Your task to perform on an android device: turn on javascript in the chrome app Image 0: 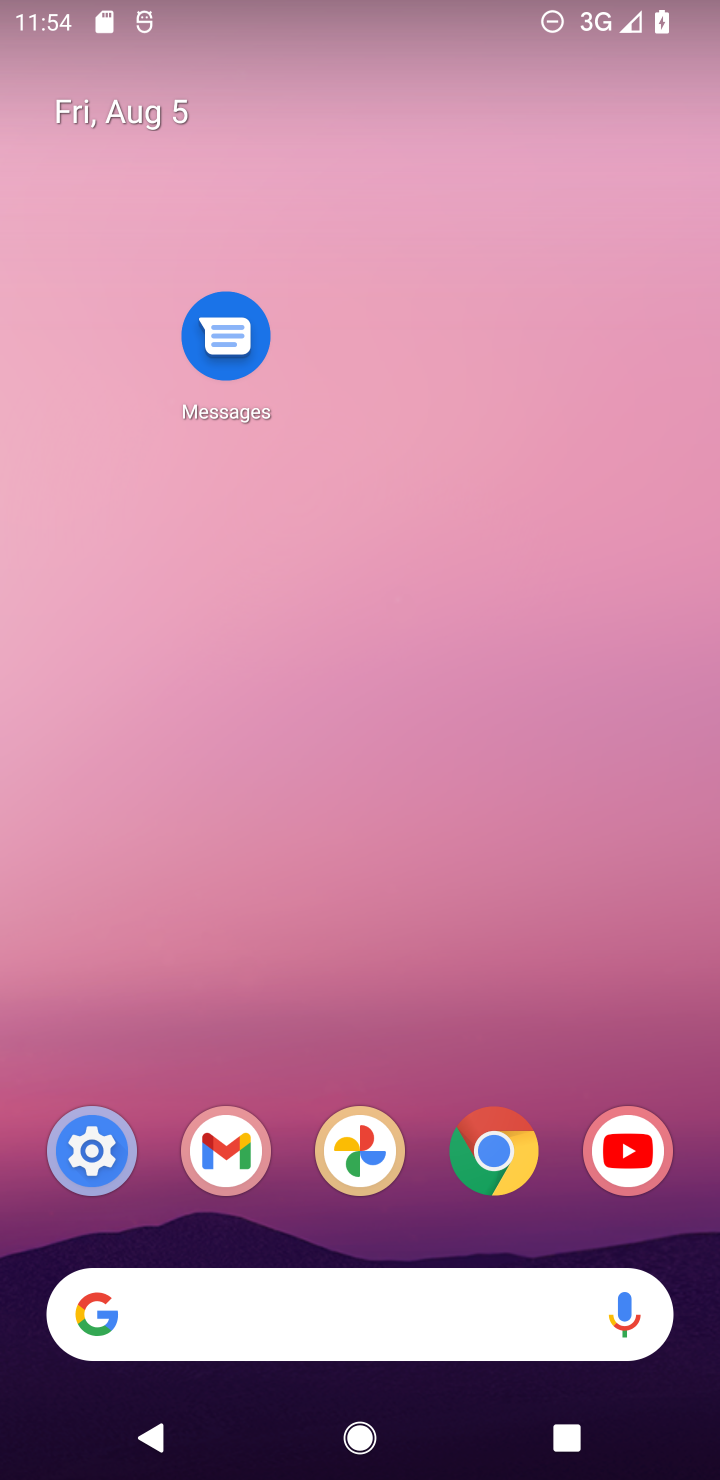
Step 0: click (490, 1146)
Your task to perform on an android device: turn on javascript in the chrome app Image 1: 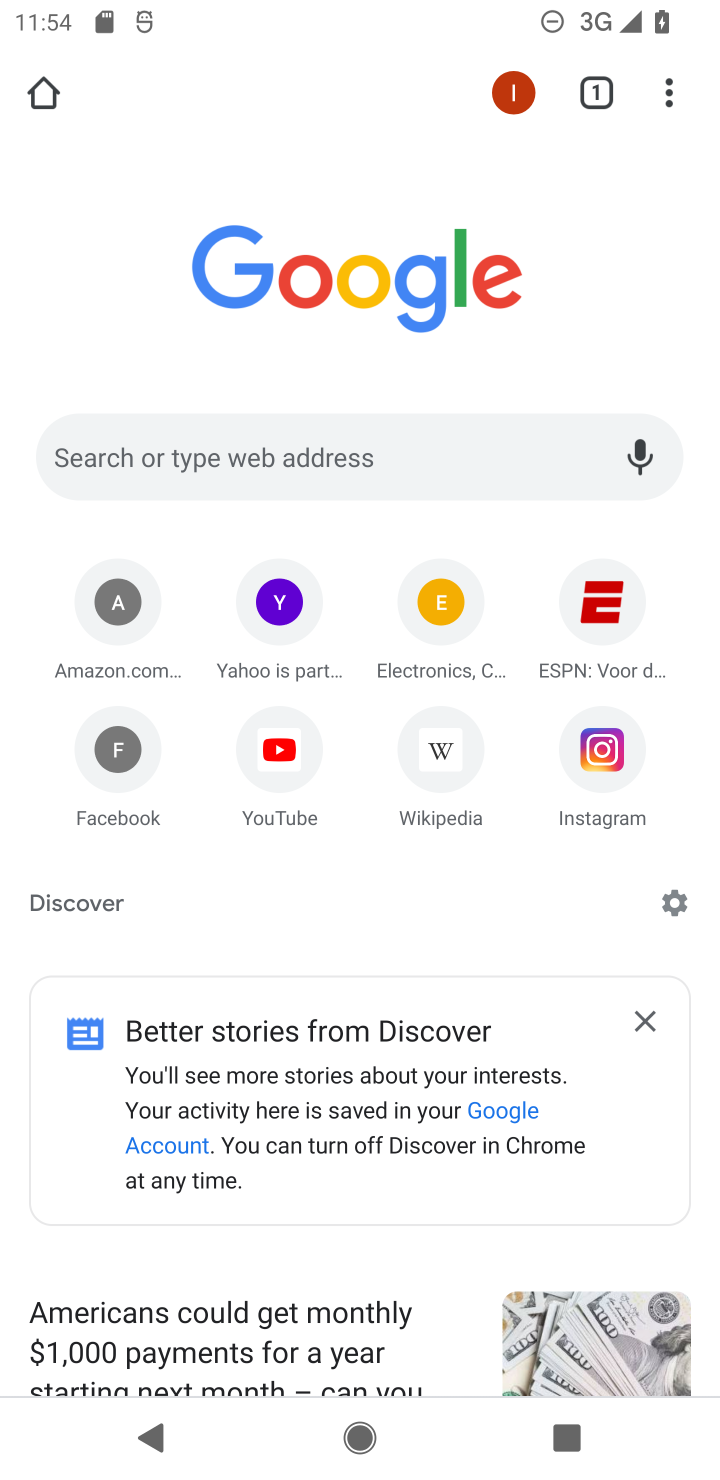
Step 1: click (676, 99)
Your task to perform on an android device: turn on javascript in the chrome app Image 2: 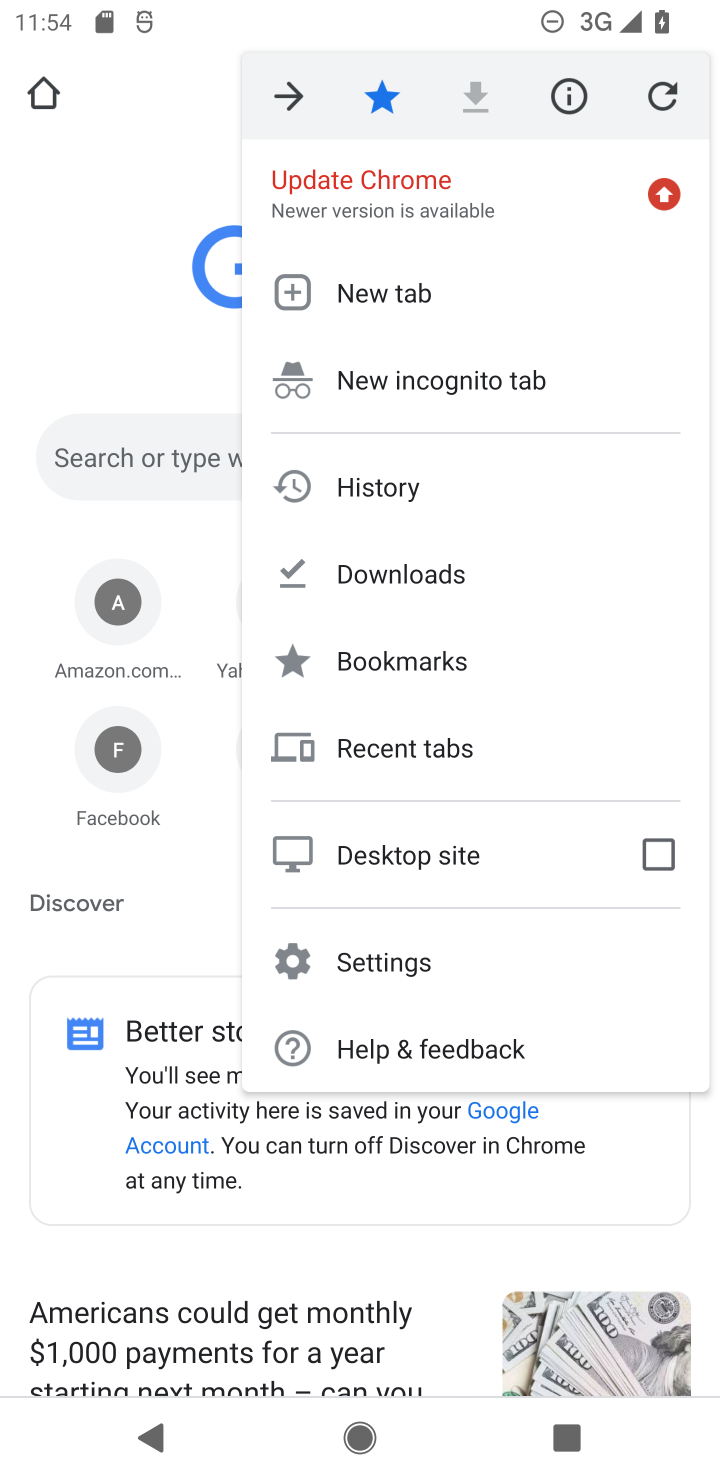
Step 2: click (360, 981)
Your task to perform on an android device: turn on javascript in the chrome app Image 3: 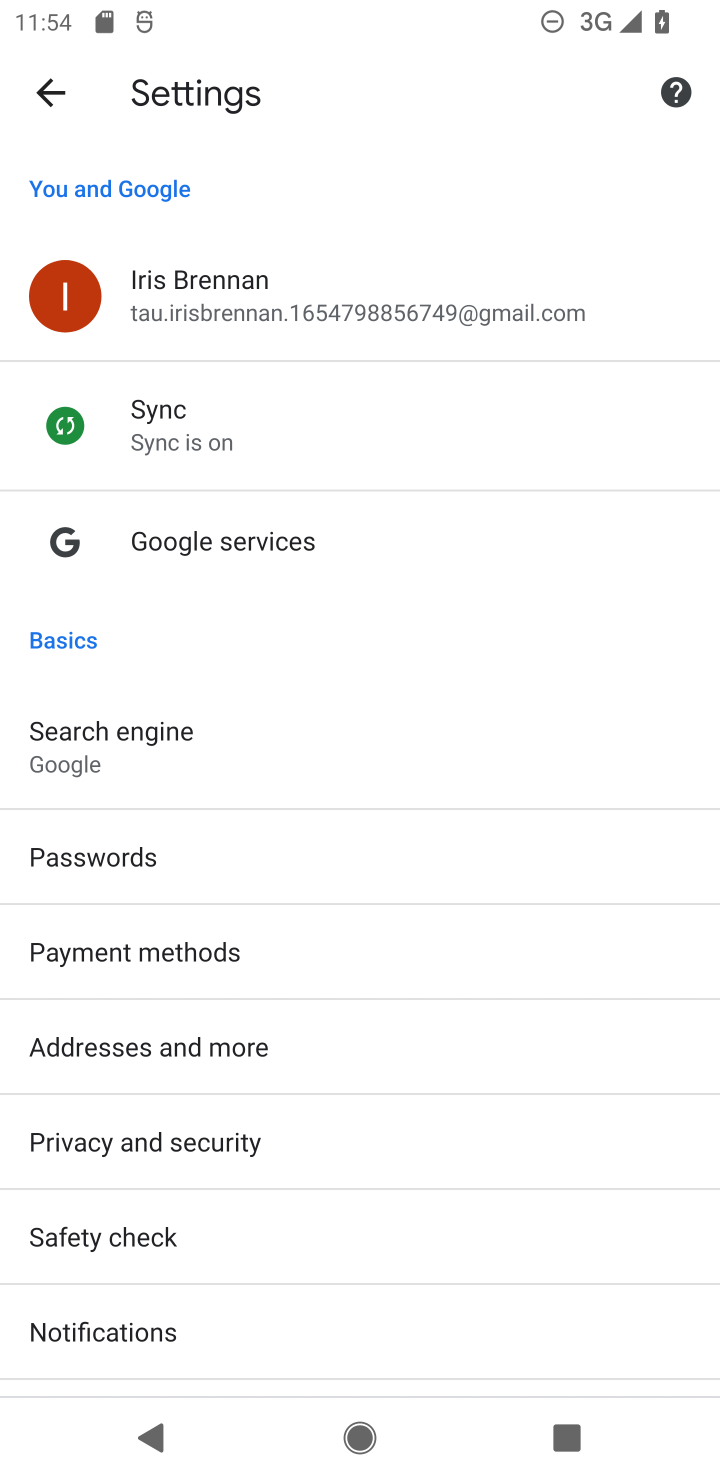
Step 3: drag from (253, 1238) to (276, 486)
Your task to perform on an android device: turn on javascript in the chrome app Image 4: 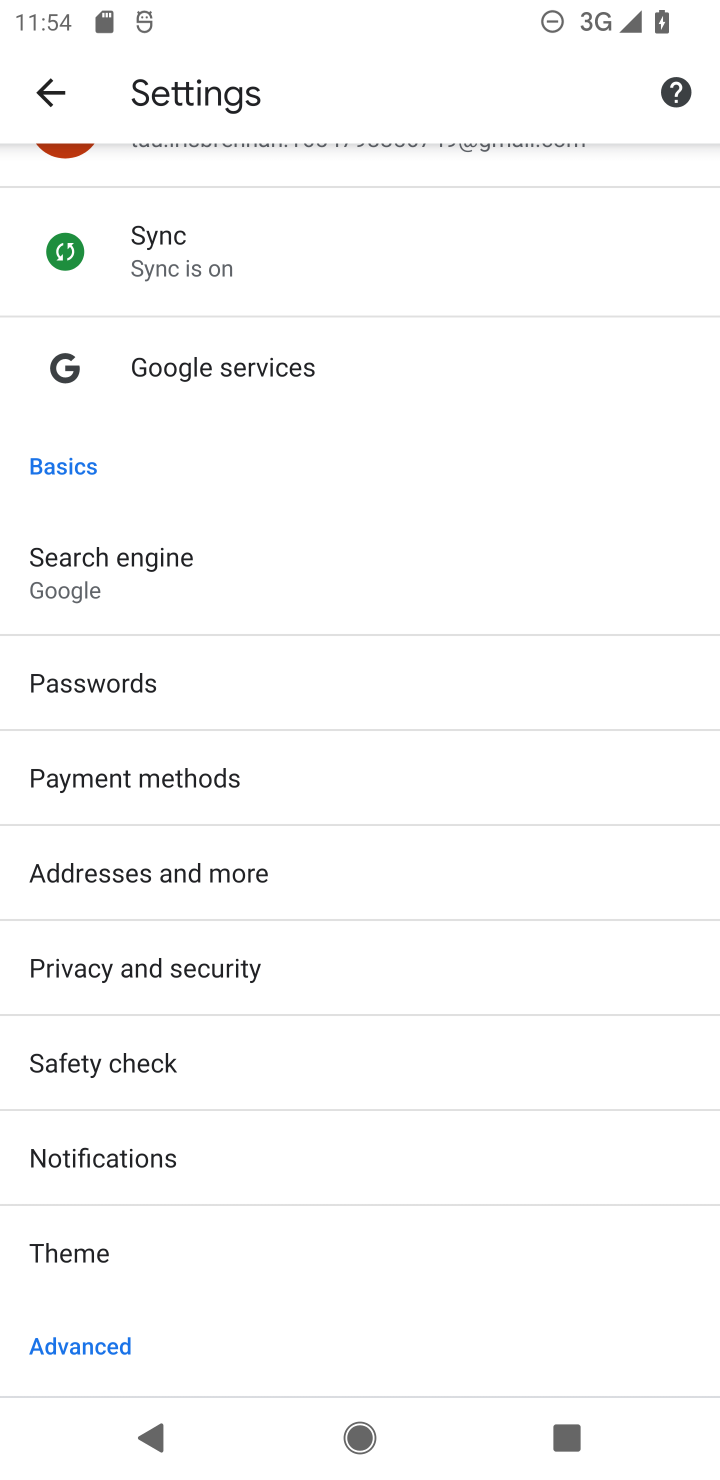
Step 4: drag from (136, 1186) to (165, 790)
Your task to perform on an android device: turn on javascript in the chrome app Image 5: 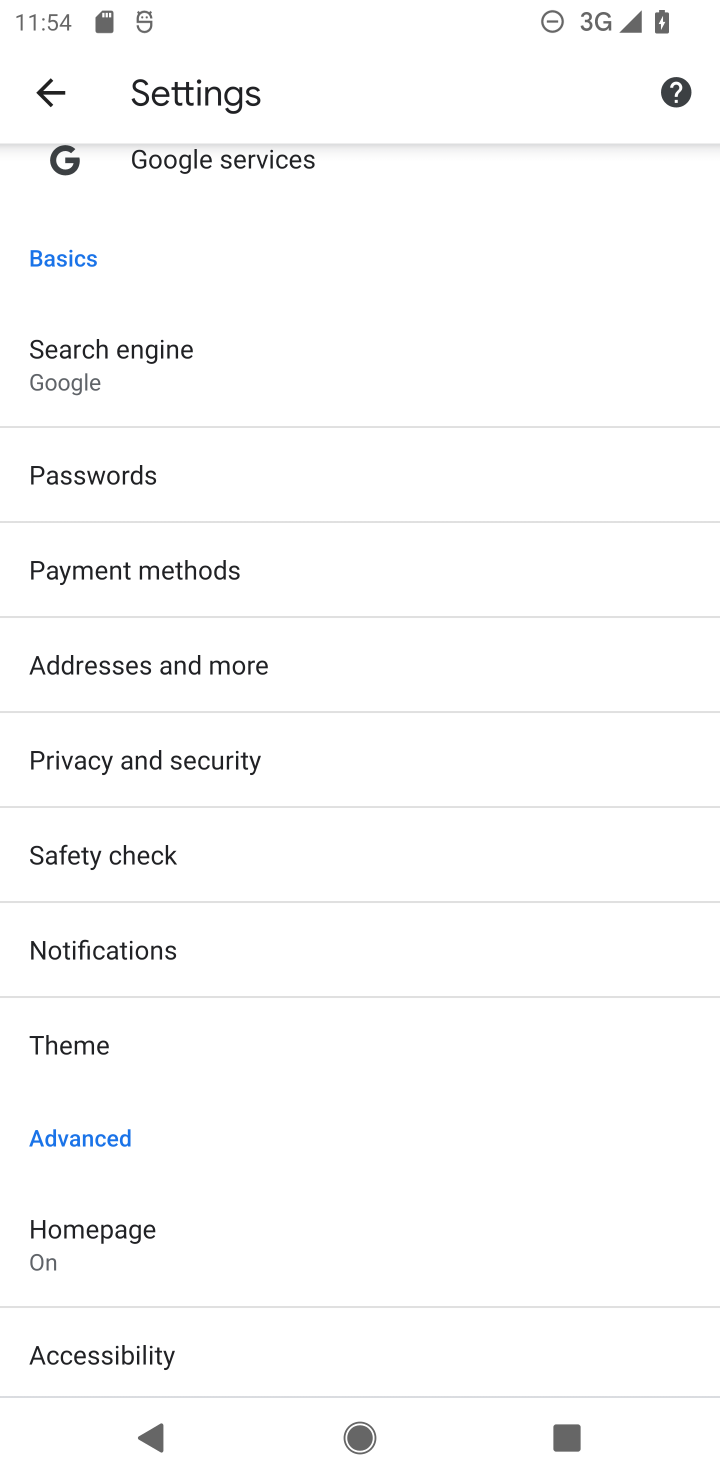
Step 5: click (219, 499)
Your task to perform on an android device: turn on javascript in the chrome app Image 6: 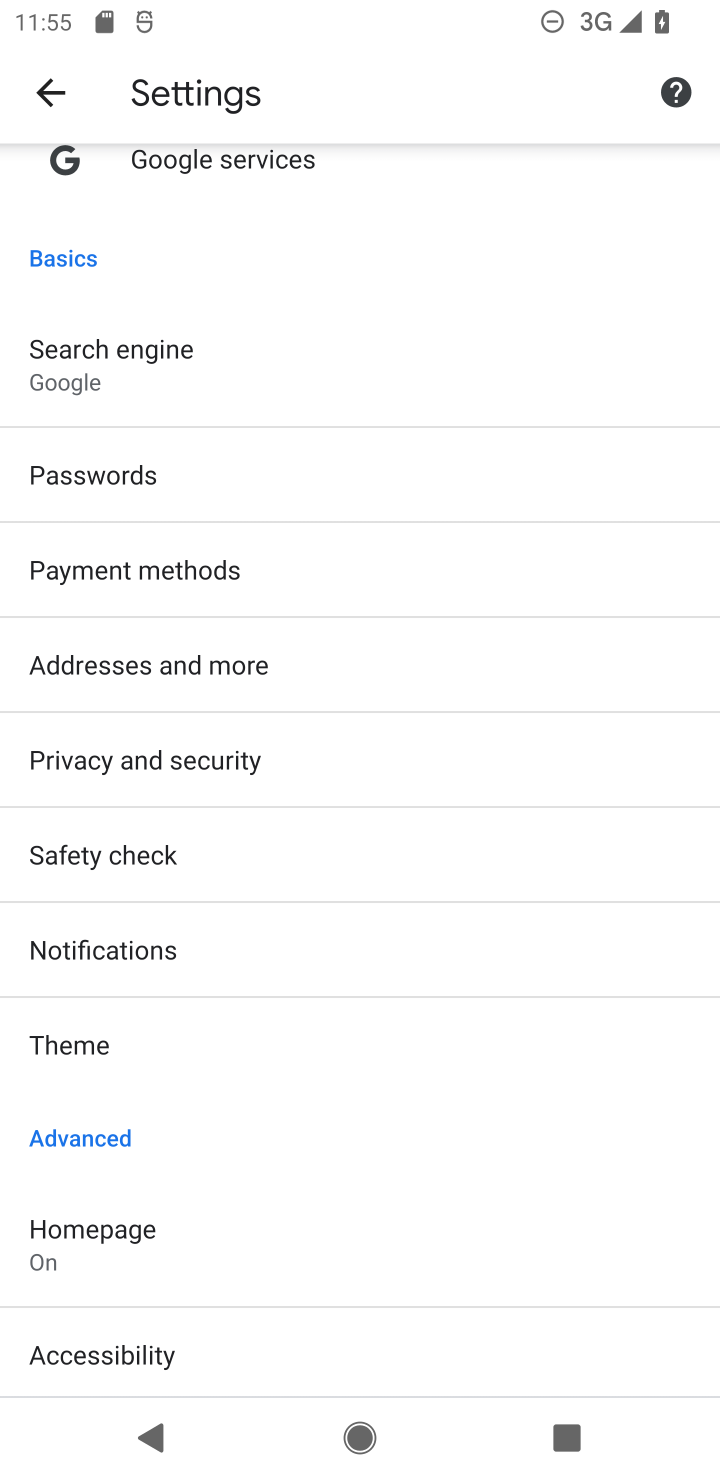
Step 6: drag from (176, 1122) to (189, 688)
Your task to perform on an android device: turn on javascript in the chrome app Image 7: 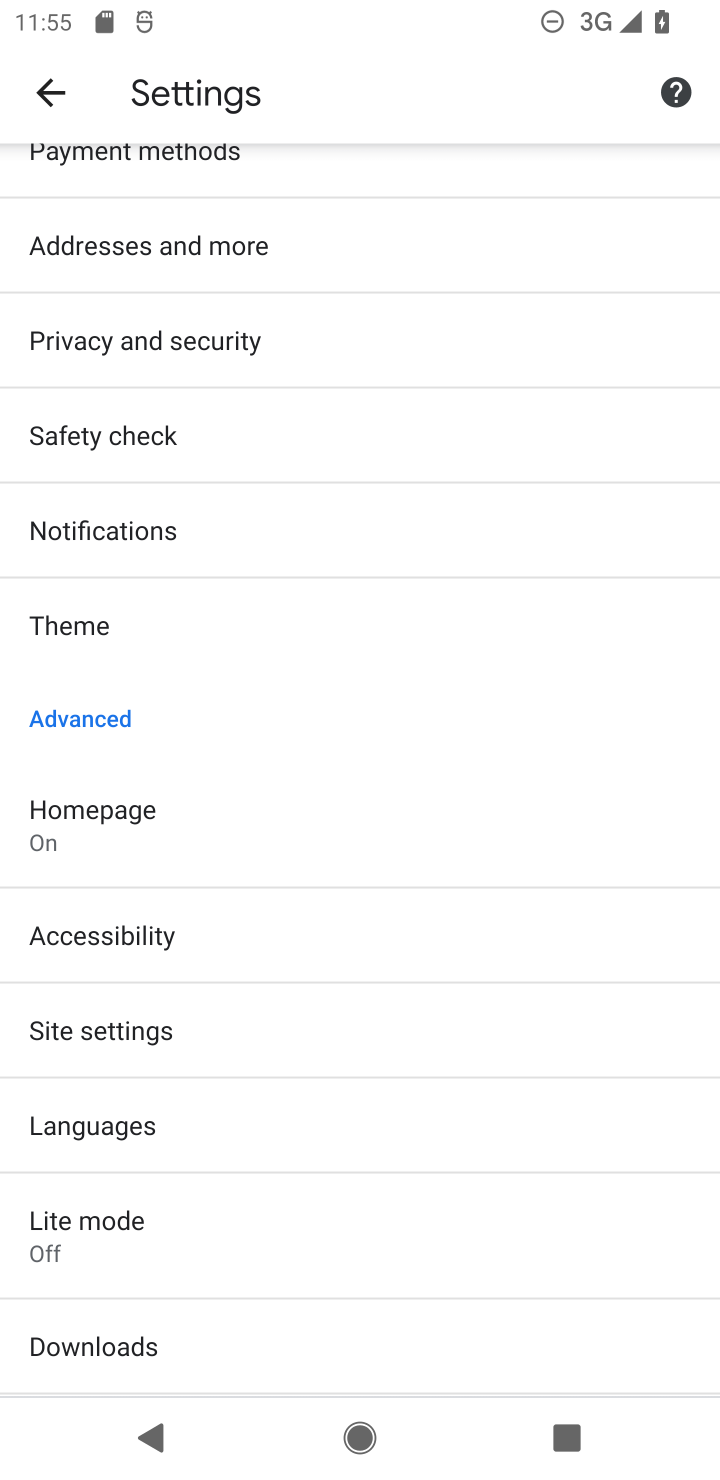
Step 7: click (72, 1028)
Your task to perform on an android device: turn on javascript in the chrome app Image 8: 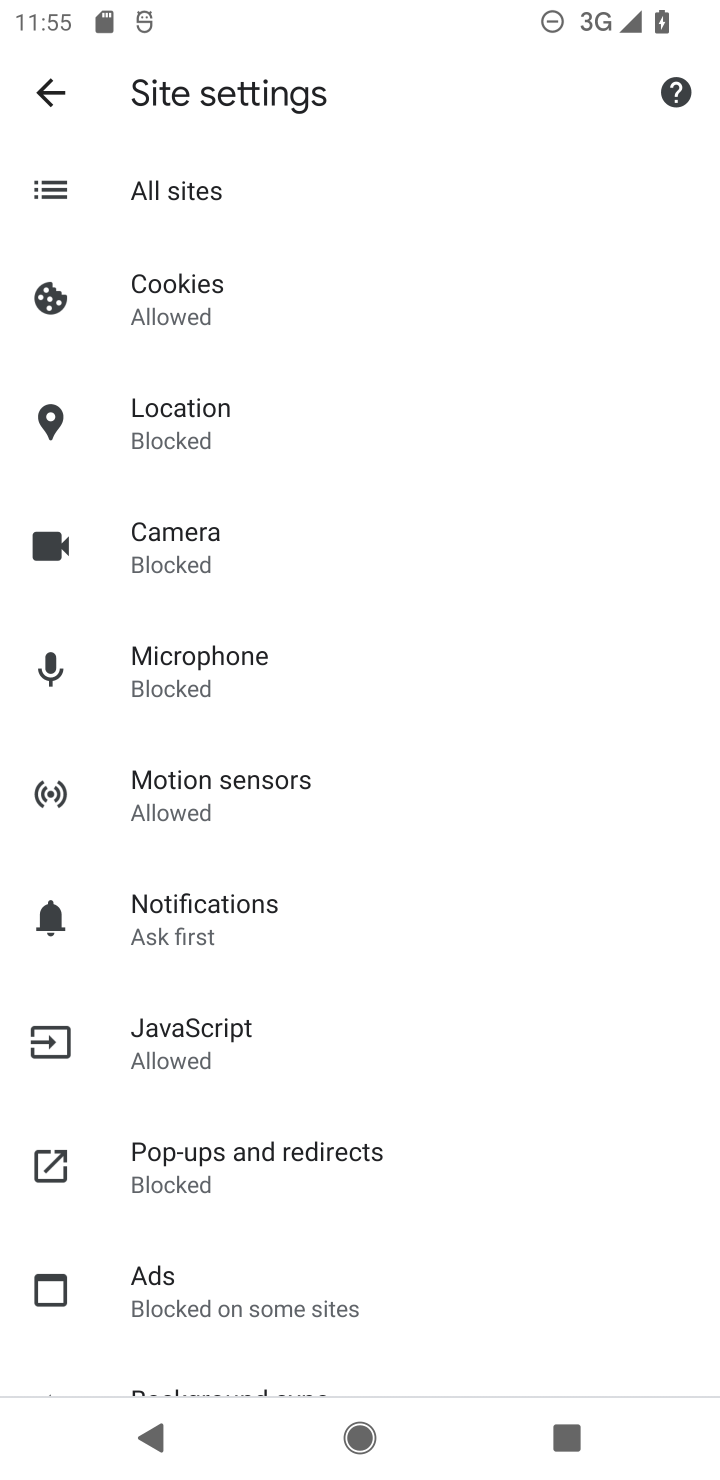
Step 8: click (244, 1167)
Your task to perform on an android device: turn on javascript in the chrome app Image 9: 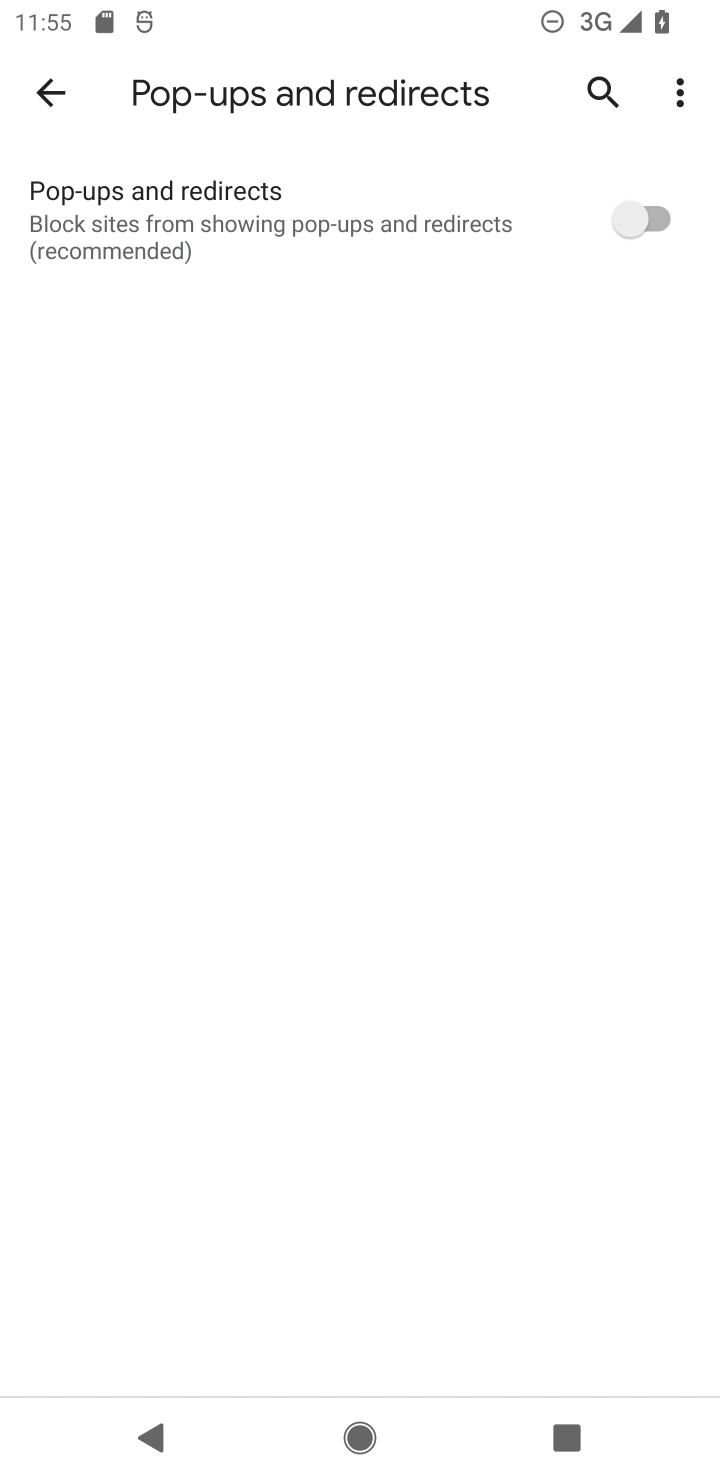
Step 9: click (652, 218)
Your task to perform on an android device: turn on javascript in the chrome app Image 10: 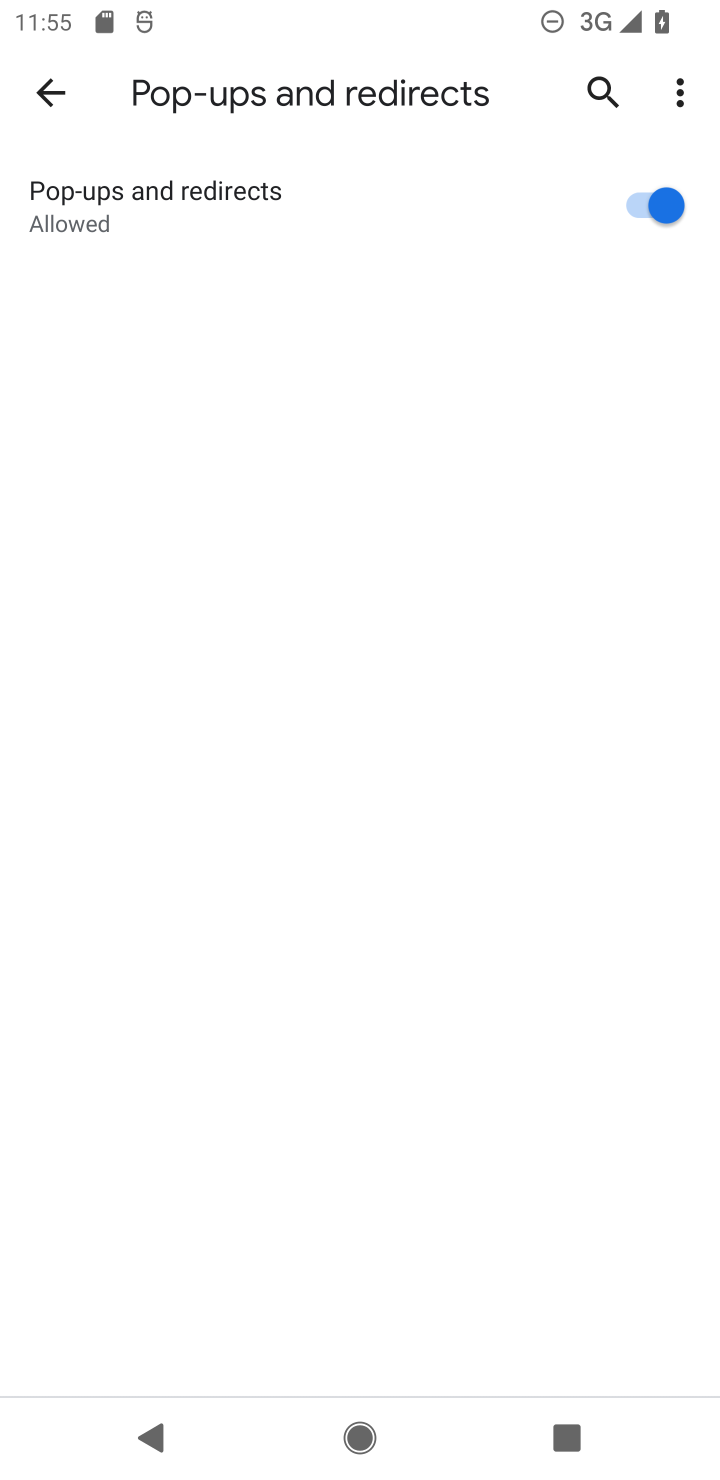
Step 10: task complete